Your task to perform on an android device: Open settings on Google Maps Image 0: 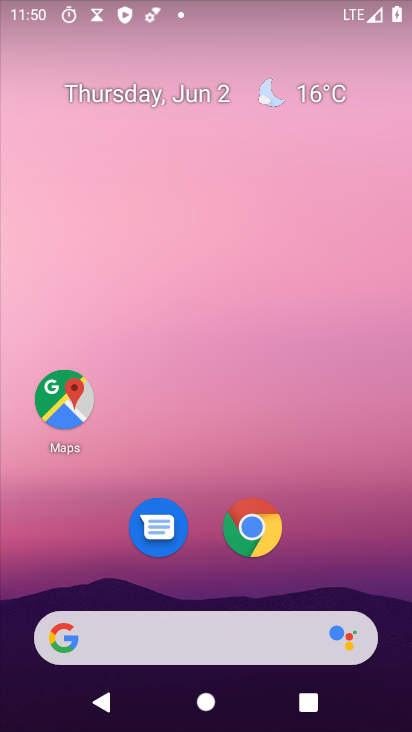
Step 0: click (67, 418)
Your task to perform on an android device: Open settings on Google Maps Image 1: 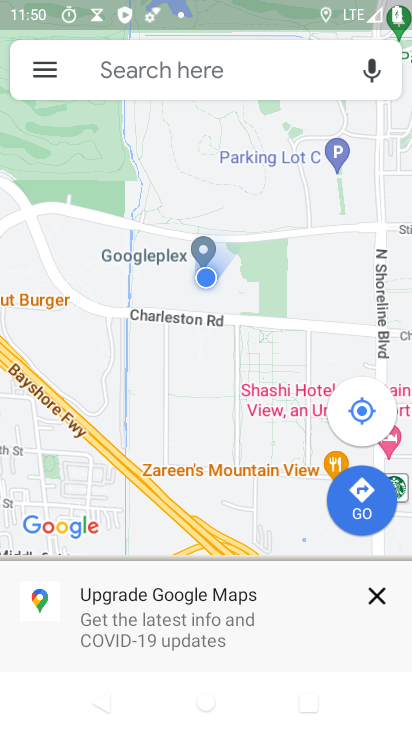
Step 1: click (48, 68)
Your task to perform on an android device: Open settings on Google Maps Image 2: 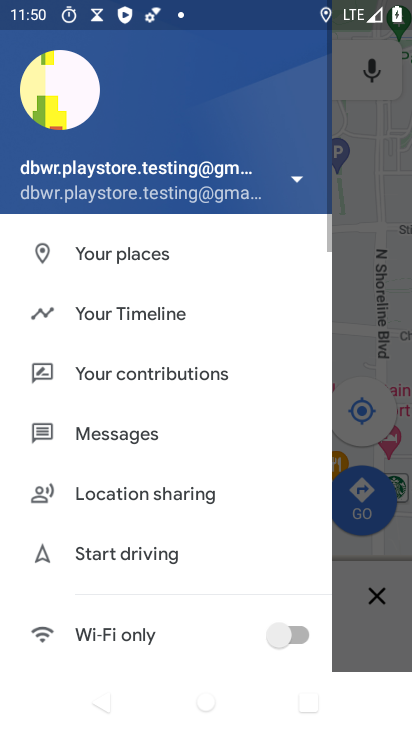
Step 2: drag from (163, 545) to (132, 50)
Your task to perform on an android device: Open settings on Google Maps Image 3: 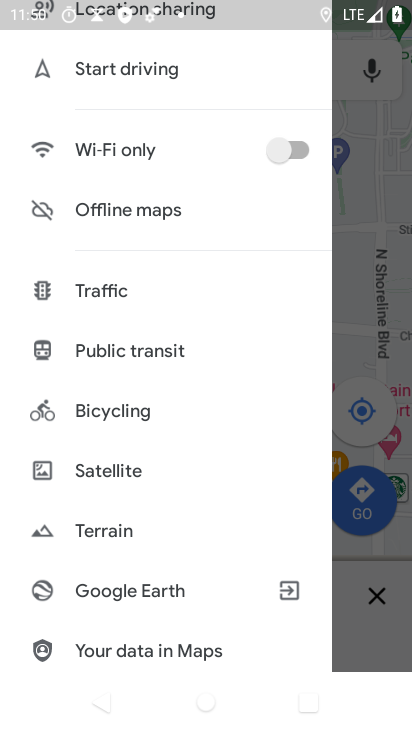
Step 3: drag from (129, 613) to (84, 21)
Your task to perform on an android device: Open settings on Google Maps Image 4: 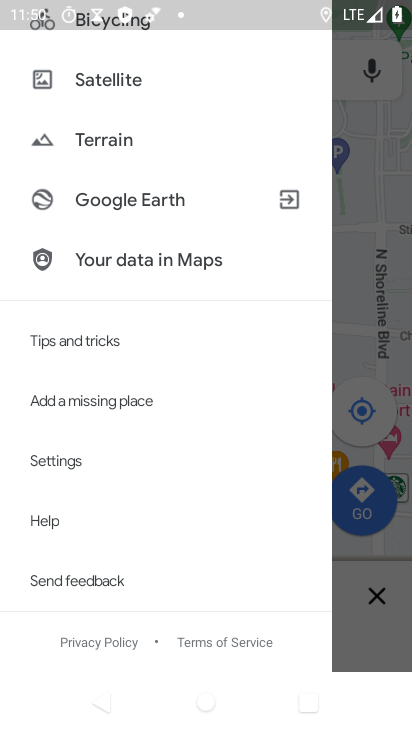
Step 4: click (67, 472)
Your task to perform on an android device: Open settings on Google Maps Image 5: 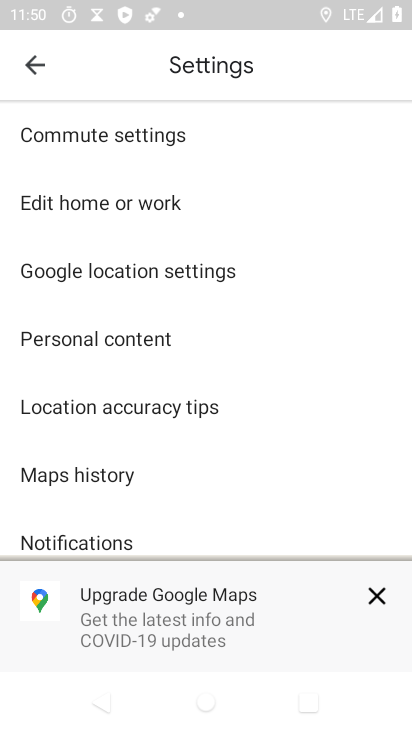
Step 5: task complete